Your task to perform on an android device: turn off smart reply in the gmail app Image 0: 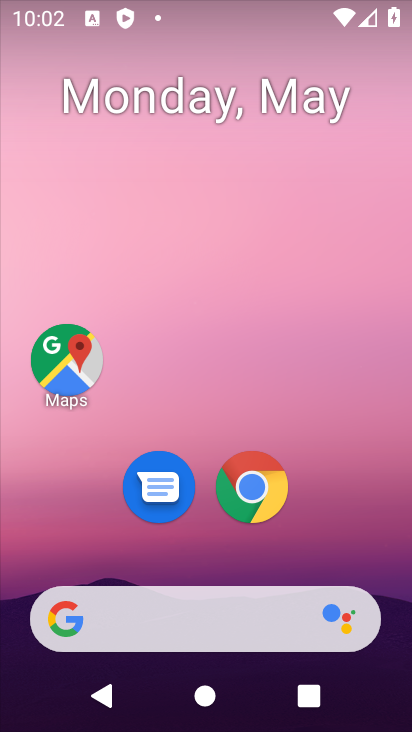
Step 0: drag from (195, 559) to (177, 155)
Your task to perform on an android device: turn off smart reply in the gmail app Image 1: 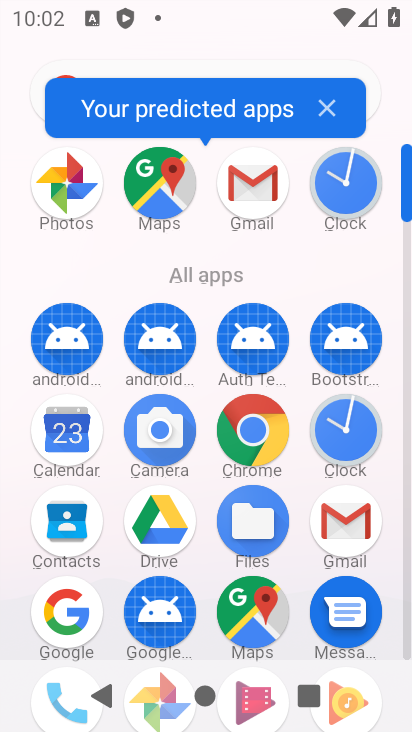
Step 1: click (244, 162)
Your task to perform on an android device: turn off smart reply in the gmail app Image 2: 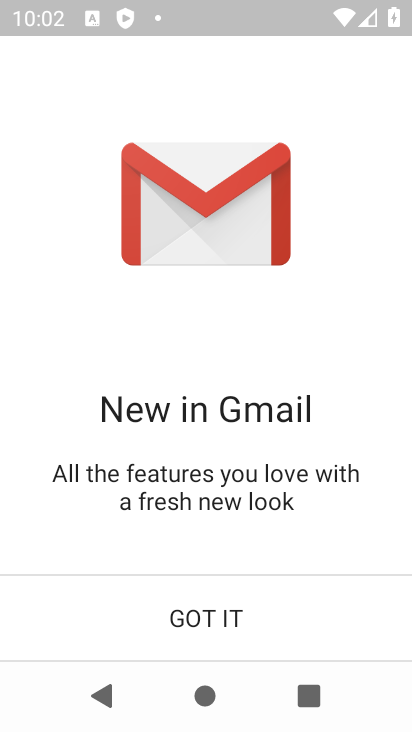
Step 2: click (208, 614)
Your task to perform on an android device: turn off smart reply in the gmail app Image 3: 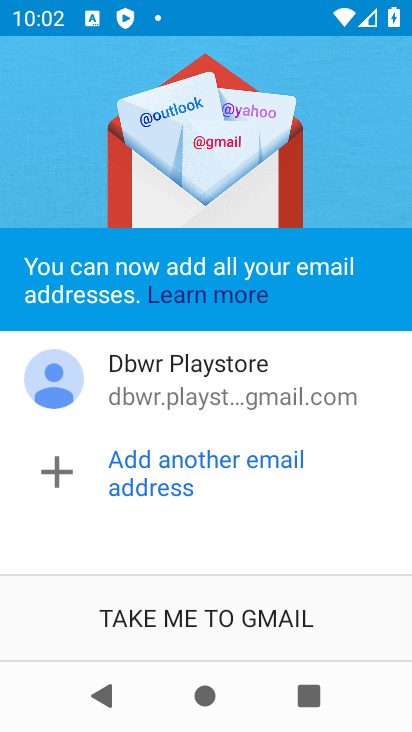
Step 3: click (208, 614)
Your task to perform on an android device: turn off smart reply in the gmail app Image 4: 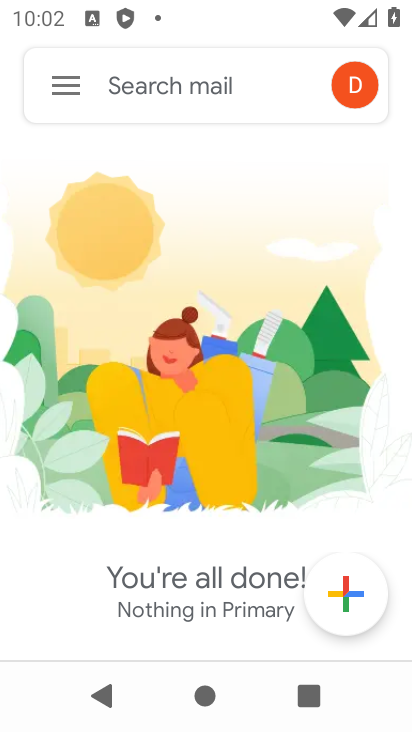
Step 4: click (73, 86)
Your task to perform on an android device: turn off smart reply in the gmail app Image 5: 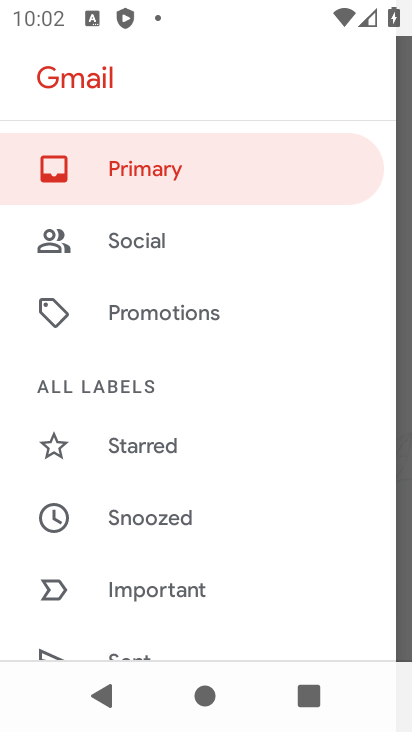
Step 5: drag from (87, 610) to (151, 121)
Your task to perform on an android device: turn off smart reply in the gmail app Image 6: 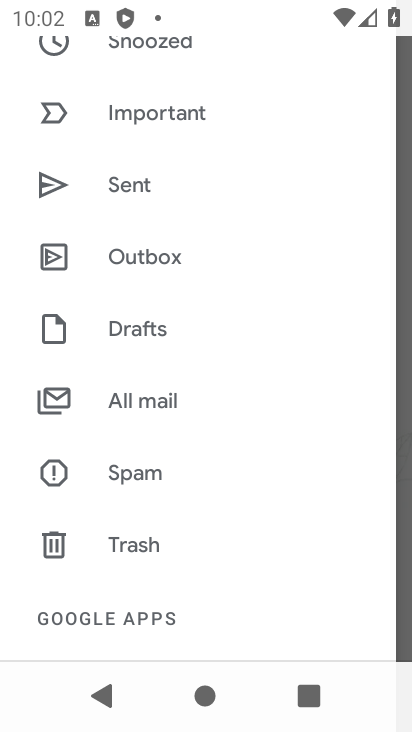
Step 6: drag from (85, 609) to (164, 60)
Your task to perform on an android device: turn off smart reply in the gmail app Image 7: 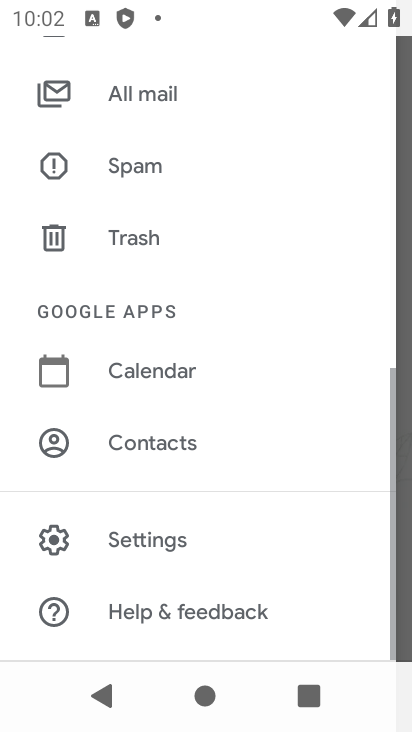
Step 7: click (151, 540)
Your task to perform on an android device: turn off smart reply in the gmail app Image 8: 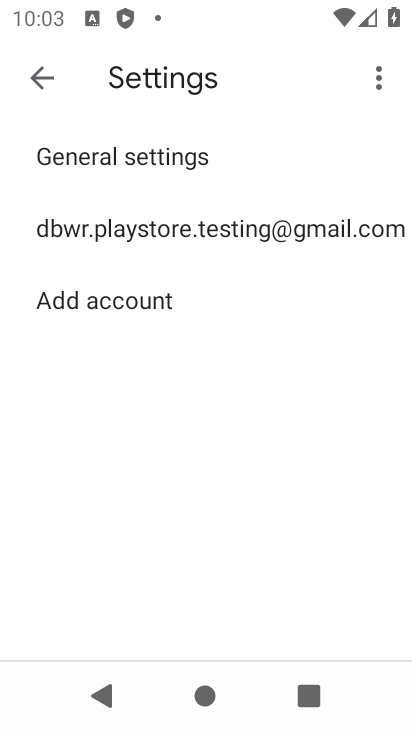
Step 8: click (164, 203)
Your task to perform on an android device: turn off smart reply in the gmail app Image 9: 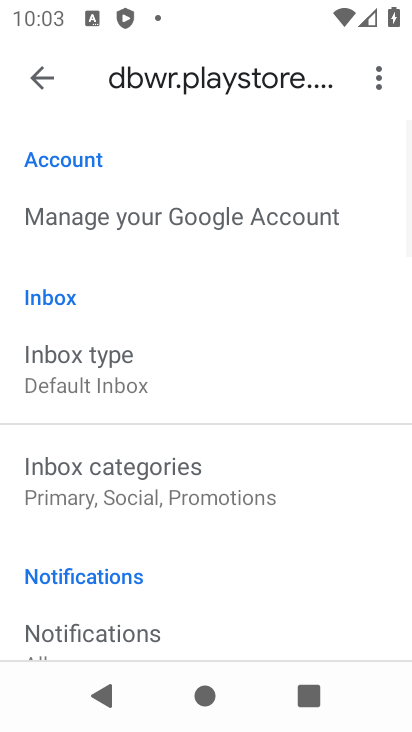
Step 9: drag from (84, 612) to (131, 12)
Your task to perform on an android device: turn off smart reply in the gmail app Image 10: 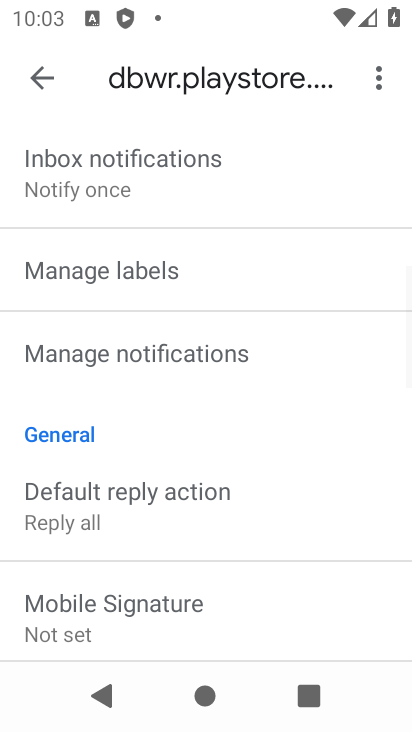
Step 10: drag from (103, 580) to (121, 109)
Your task to perform on an android device: turn off smart reply in the gmail app Image 11: 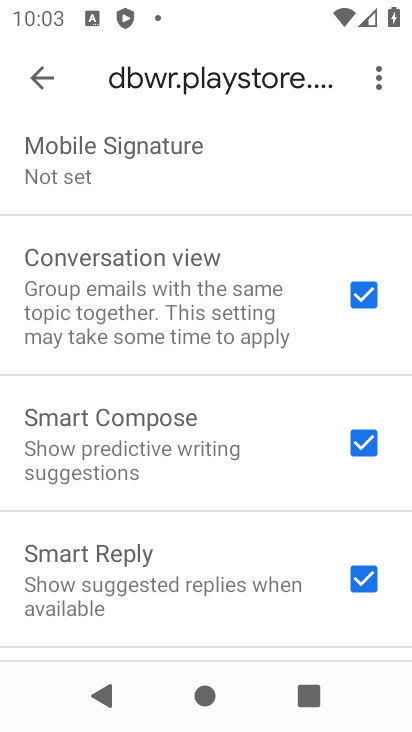
Step 11: click (356, 579)
Your task to perform on an android device: turn off smart reply in the gmail app Image 12: 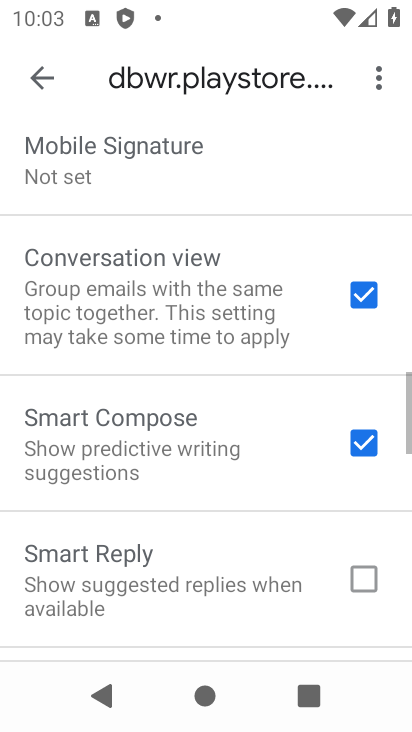
Step 12: task complete